Your task to perform on an android device: Show me popular games on the Play Store Image 0: 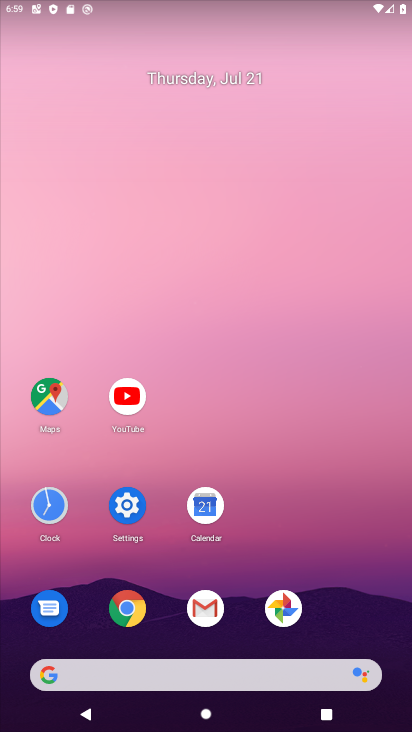
Step 0: click (128, 505)
Your task to perform on an android device: Show me popular games on the Play Store Image 1: 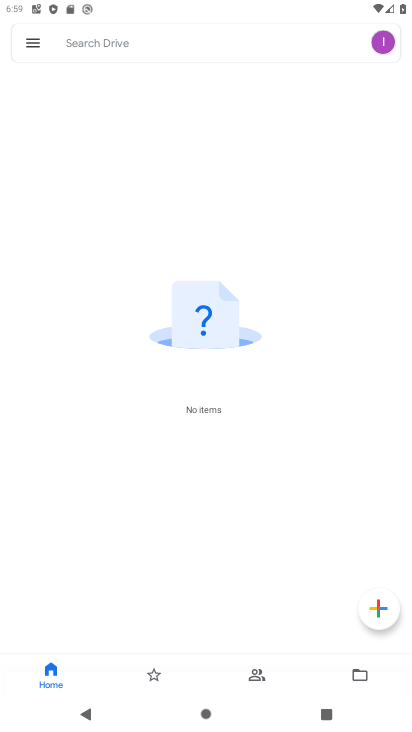
Step 1: press home button
Your task to perform on an android device: Show me popular games on the Play Store Image 2: 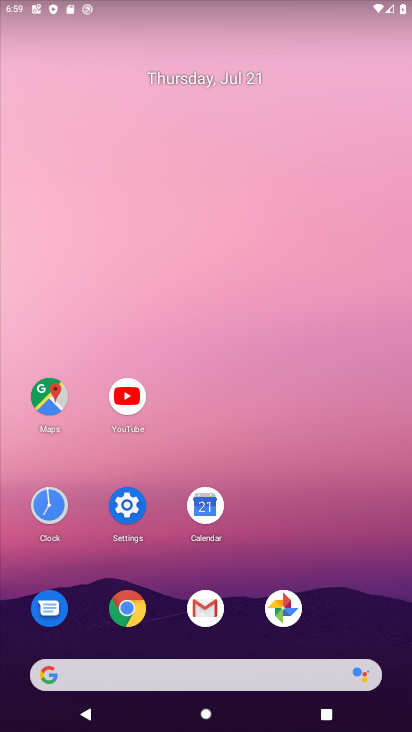
Step 2: drag from (280, 553) to (276, 149)
Your task to perform on an android device: Show me popular games on the Play Store Image 3: 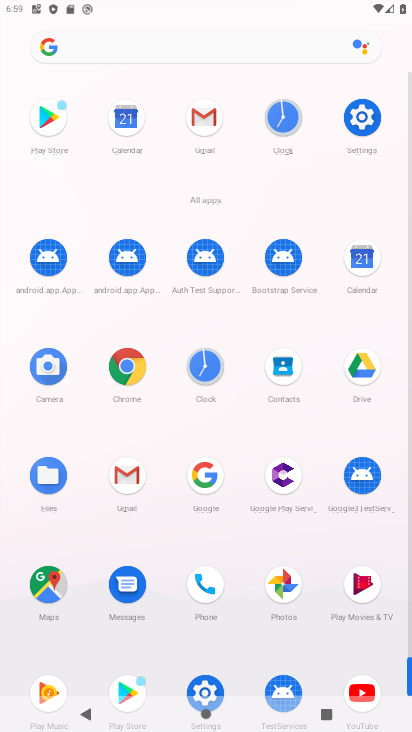
Step 3: click (129, 682)
Your task to perform on an android device: Show me popular games on the Play Store Image 4: 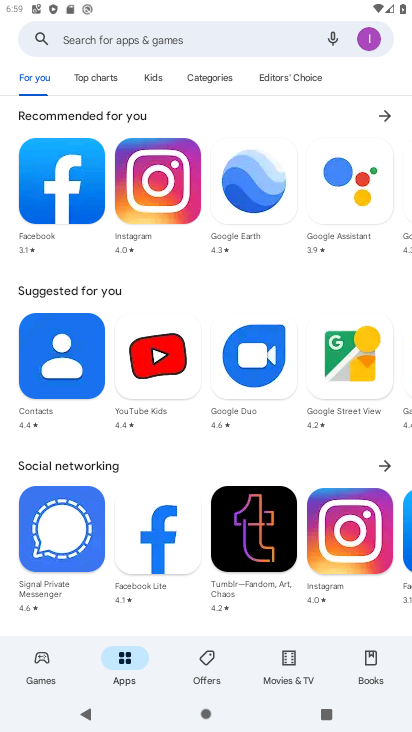
Step 4: click (41, 663)
Your task to perform on an android device: Show me popular games on the Play Store Image 5: 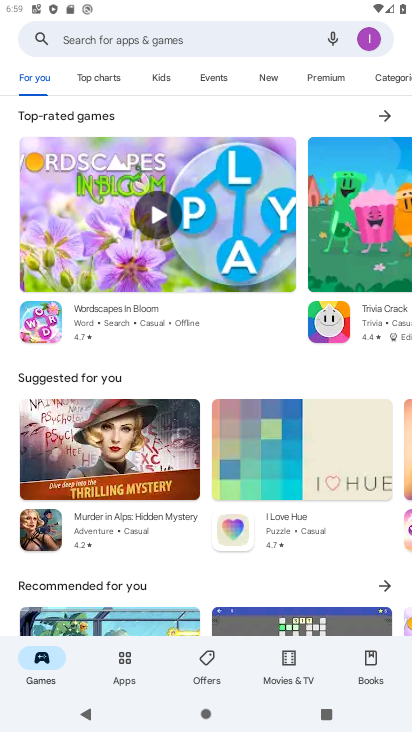
Step 5: task complete